Your task to perform on an android device: change keyboard looks Image 0: 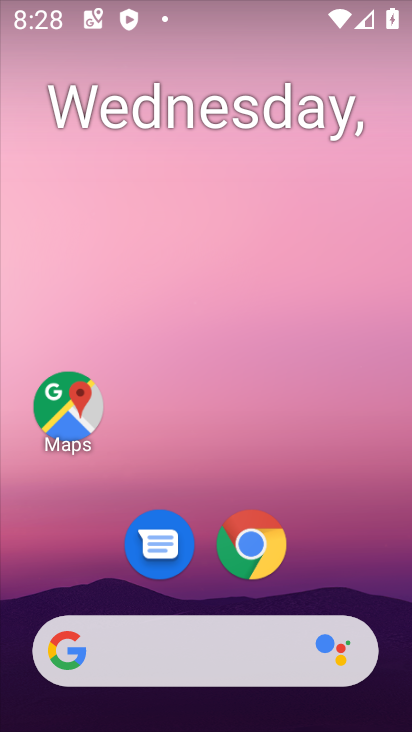
Step 0: drag from (211, 485) to (267, 18)
Your task to perform on an android device: change keyboard looks Image 1: 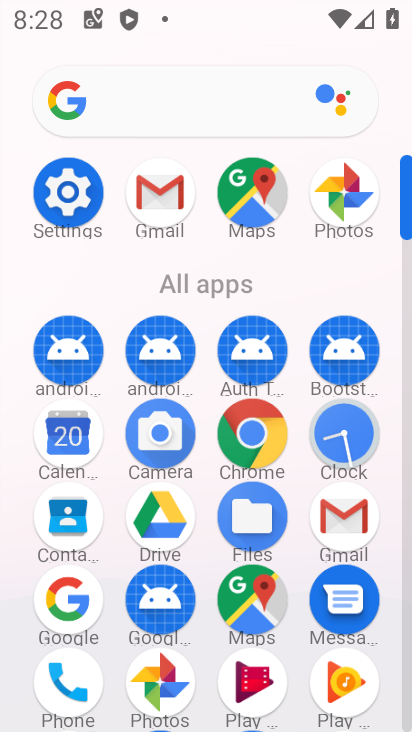
Step 1: click (68, 177)
Your task to perform on an android device: change keyboard looks Image 2: 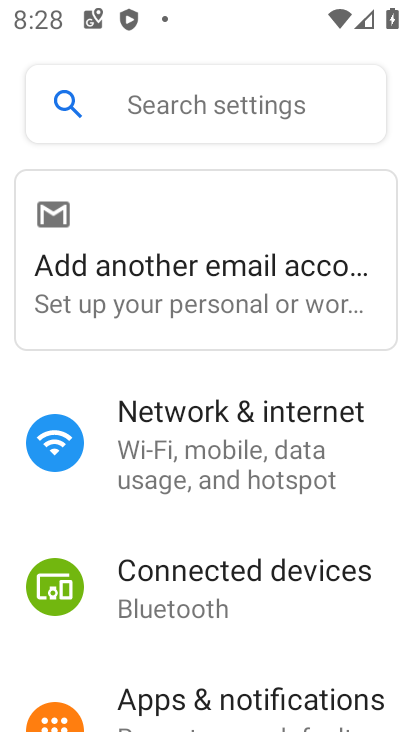
Step 2: drag from (196, 633) to (341, 152)
Your task to perform on an android device: change keyboard looks Image 3: 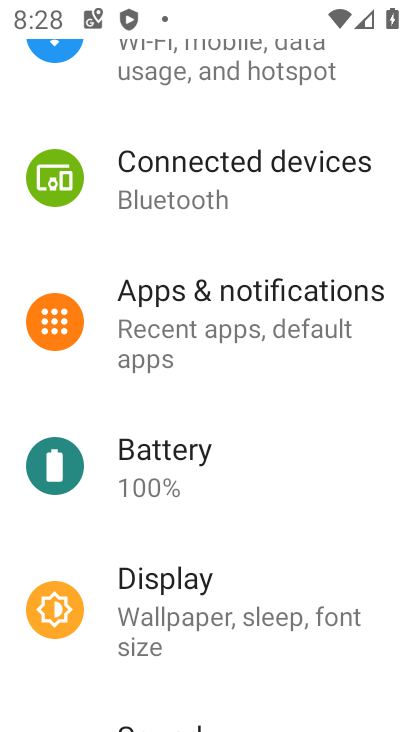
Step 3: drag from (181, 703) to (302, 125)
Your task to perform on an android device: change keyboard looks Image 4: 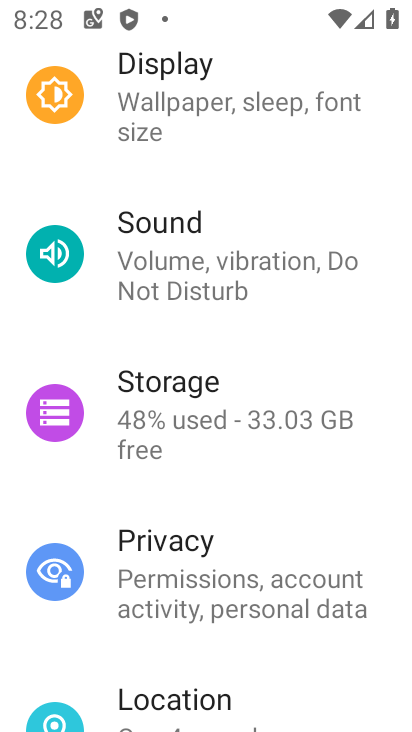
Step 4: drag from (236, 101) to (252, 715)
Your task to perform on an android device: change keyboard looks Image 5: 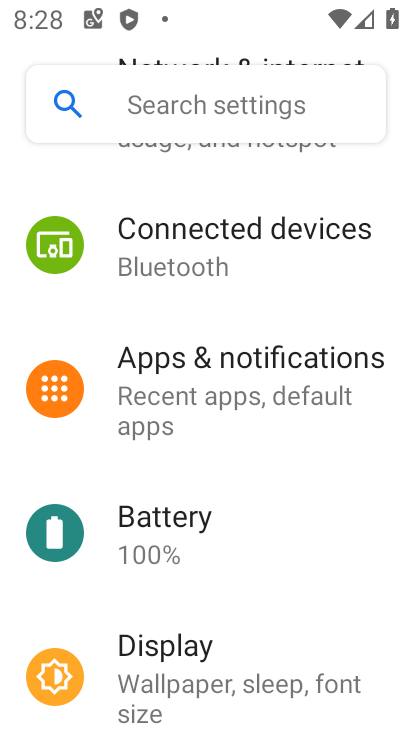
Step 5: drag from (219, 180) to (219, 721)
Your task to perform on an android device: change keyboard looks Image 6: 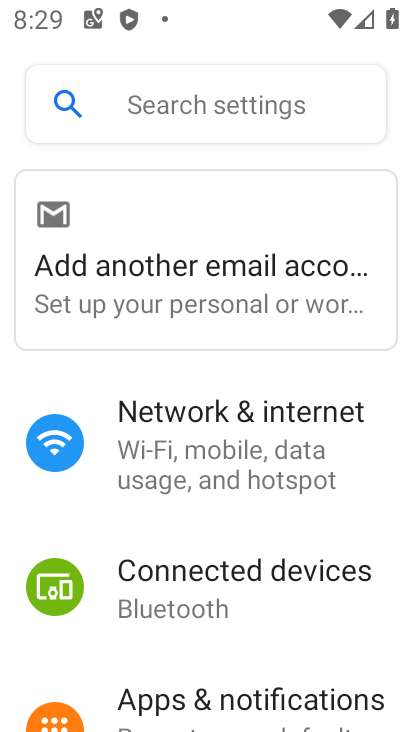
Step 6: drag from (210, 651) to (317, 116)
Your task to perform on an android device: change keyboard looks Image 7: 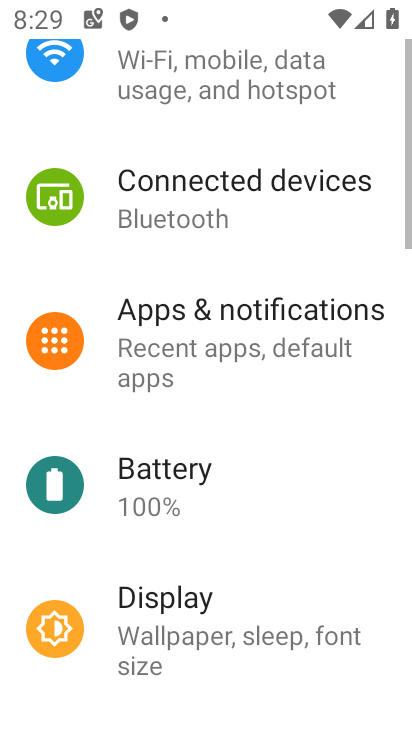
Step 7: drag from (255, 599) to (358, 89)
Your task to perform on an android device: change keyboard looks Image 8: 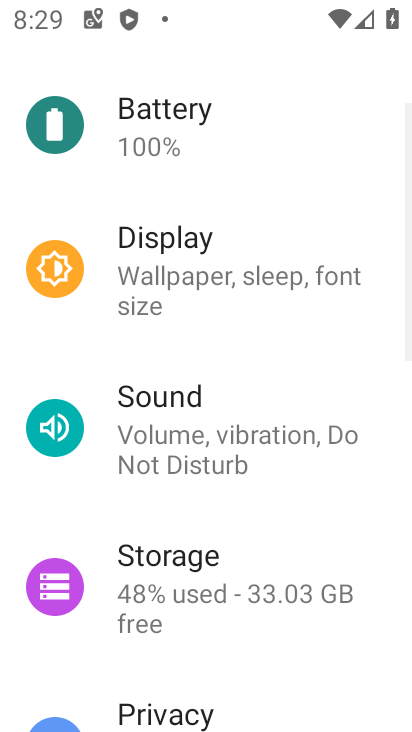
Step 8: drag from (242, 599) to (361, 74)
Your task to perform on an android device: change keyboard looks Image 9: 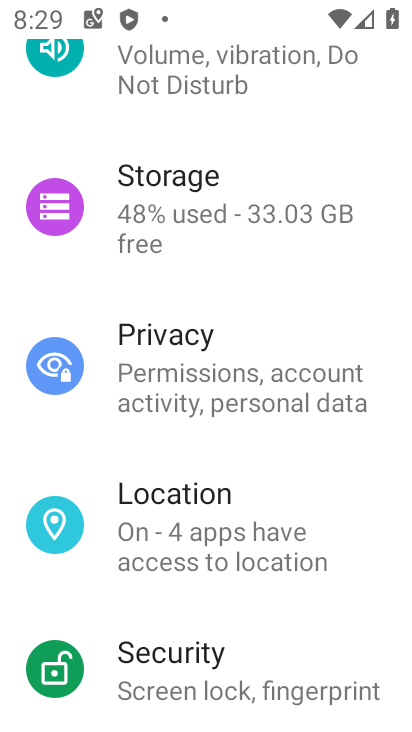
Step 9: drag from (218, 624) to (320, 51)
Your task to perform on an android device: change keyboard looks Image 10: 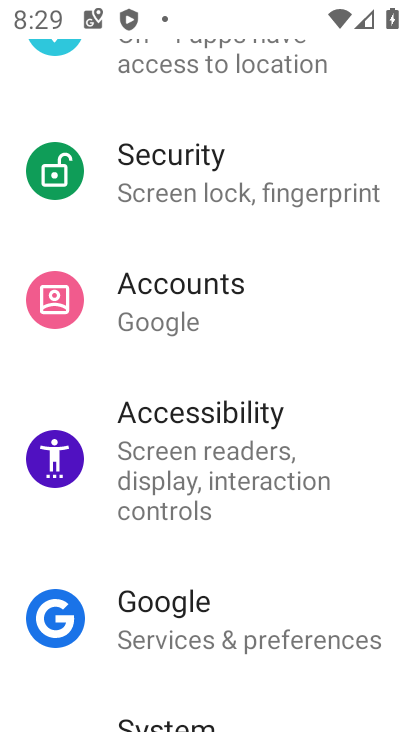
Step 10: drag from (180, 614) to (330, 7)
Your task to perform on an android device: change keyboard looks Image 11: 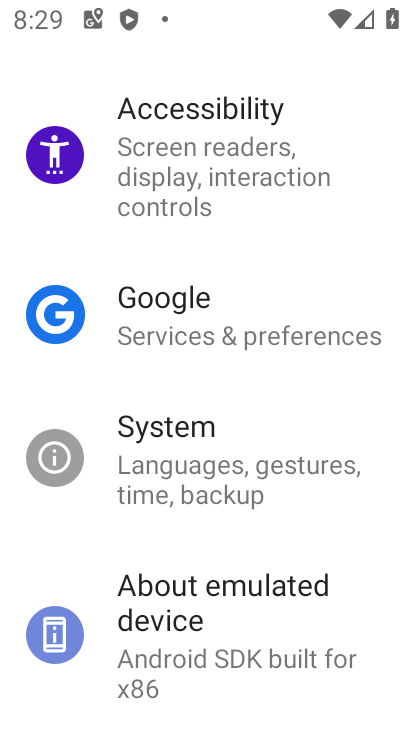
Step 11: drag from (179, 637) to (309, 38)
Your task to perform on an android device: change keyboard looks Image 12: 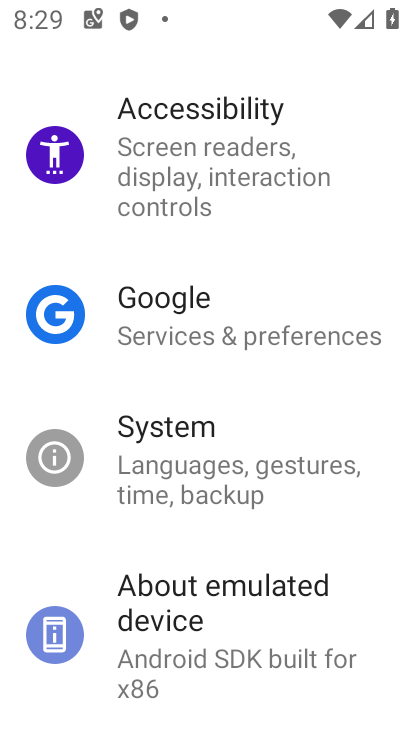
Step 12: click (204, 612)
Your task to perform on an android device: change keyboard looks Image 13: 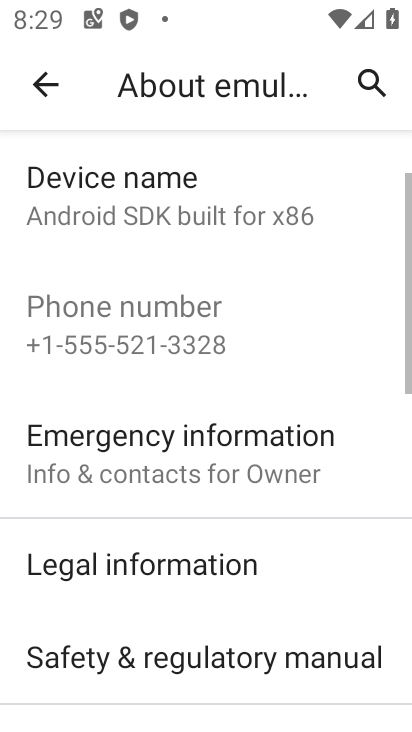
Step 13: click (36, 78)
Your task to perform on an android device: change keyboard looks Image 14: 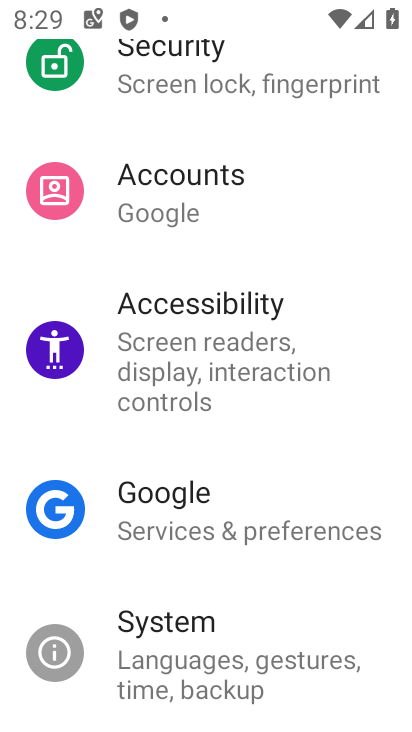
Step 14: click (196, 658)
Your task to perform on an android device: change keyboard looks Image 15: 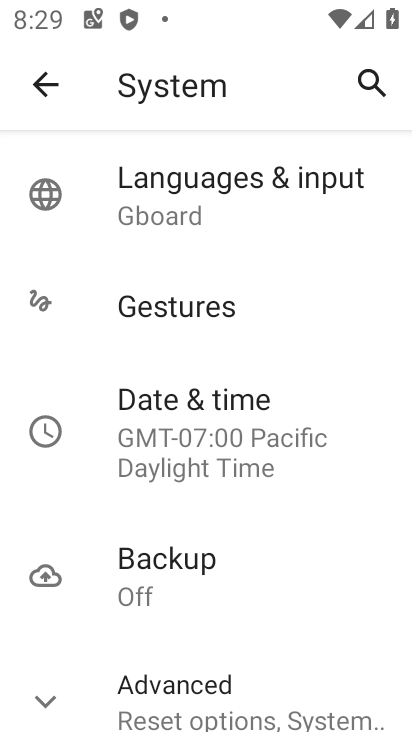
Step 15: click (185, 211)
Your task to perform on an android device: change keyboard looks Image 16: 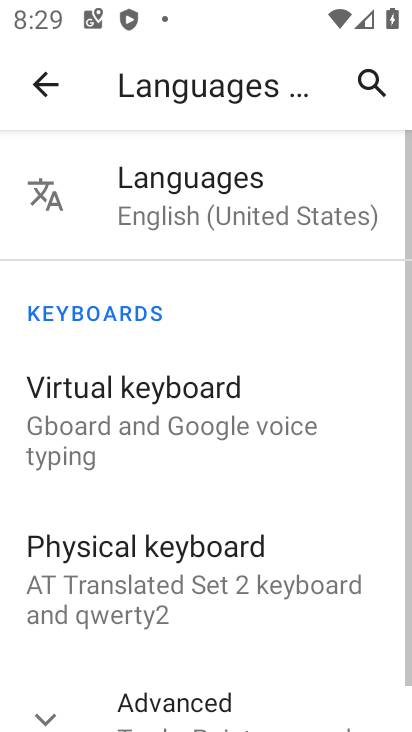
Step 16: click (125, 401)
Your task to perform on an android device: change keyboard looks Image 17: 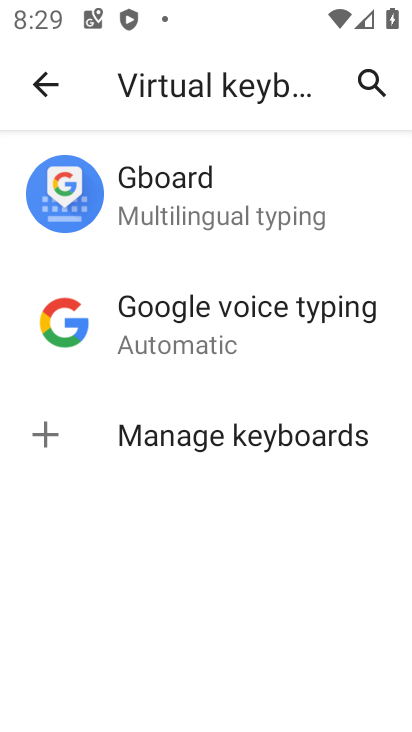
Step 17: click (147, 179)
Your task to perform on an android device: change keyboard looks Image 18: 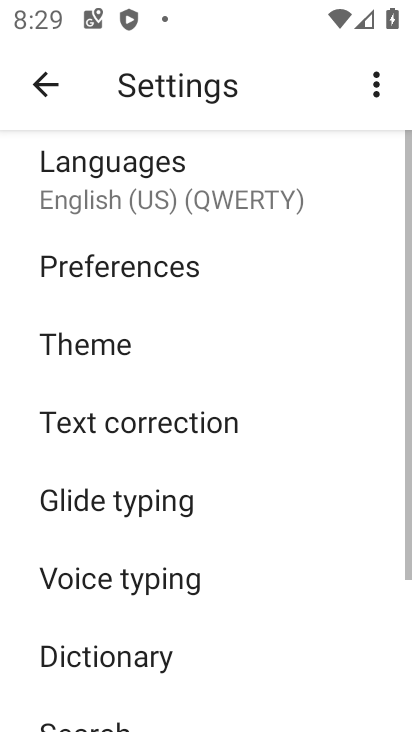
Step 18: click (85, 347)
Your task to perform on an android device: change keyboard looks Image 19: 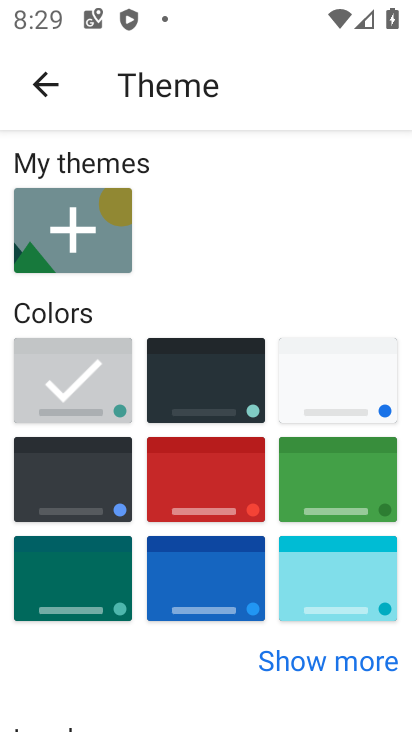
Step 19: click (240, 485)
Your task to perform on an android device: change keyboard looks Image 20: 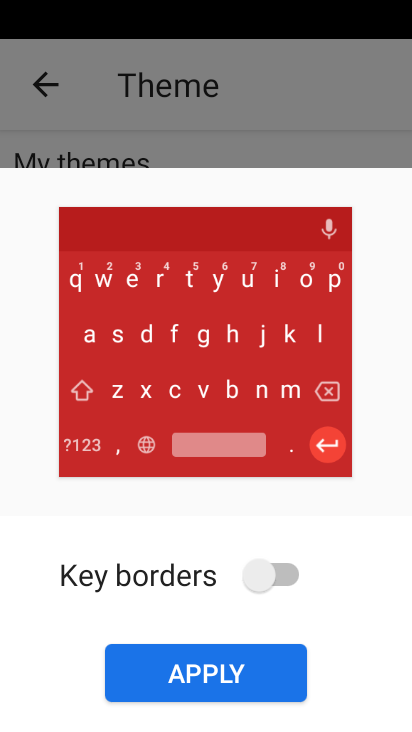
Step 20: click (211, 661)
Your task to perform on an android device: change keyboard looks Image 21: 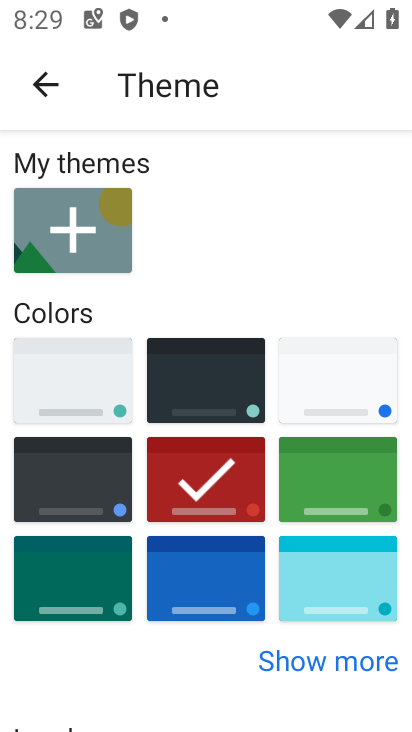
Step 21: task complete